Your task to perform on an android device: toggle priority inbox in the gmail app Image 0: 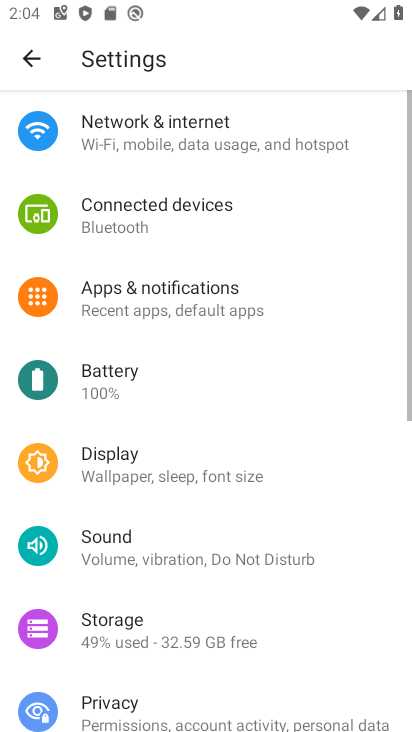
Step 0: press home button
Your task to perform on an android device: toggle priority inbox in the gmail app Image 1: 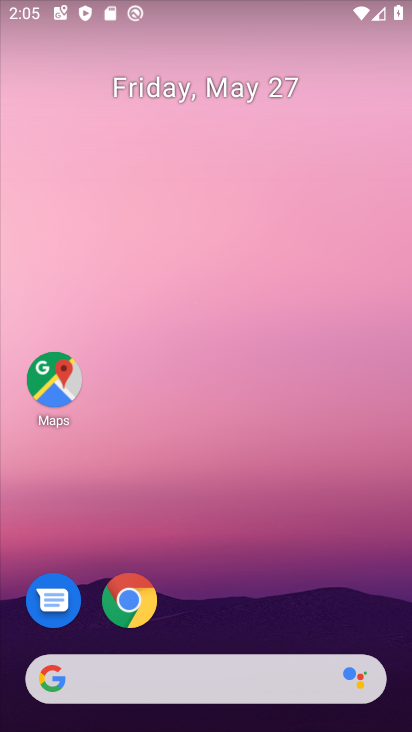
Step 1: drag from (215, 719) to (246, 279)
Your task to perform on an android device: toggle priority inbox in the gmail app Image 2: 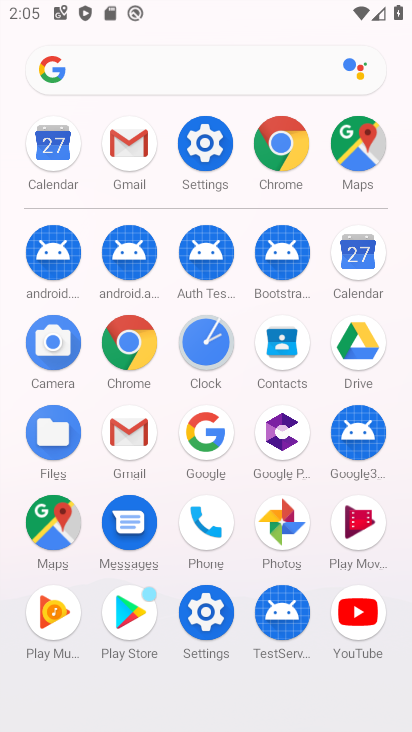
Step 2: click (123, 437)
Your task to perform on an android device: toggle priority inbox in the gmail app Image 3: 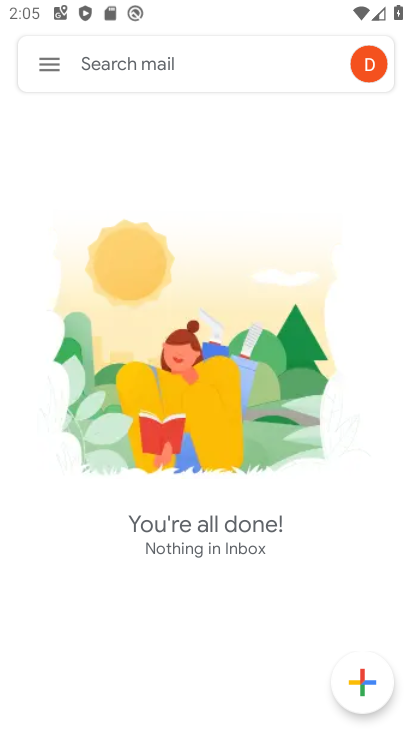
Step 3: click (50, 65)
Your task to perform on an android device: toggle priority inbox in the gmail app Image 4: 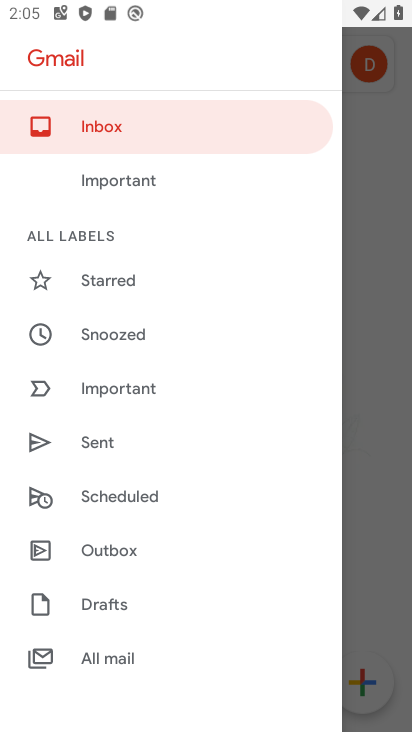
Step 4: drag from (107, 675) to (141, 248)
Your task to perform on an android device: toggle priority inbox in the gmail app Image 5: 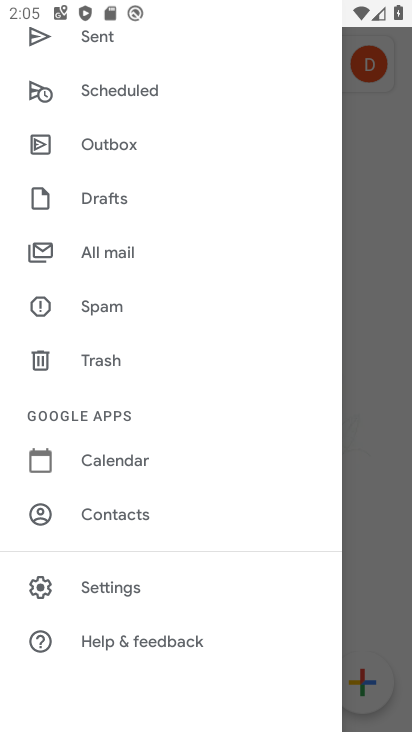
Step 5: click (118, 587)
Your task to perform on an android device: toggle priority inbox in the gmail app Image 6: 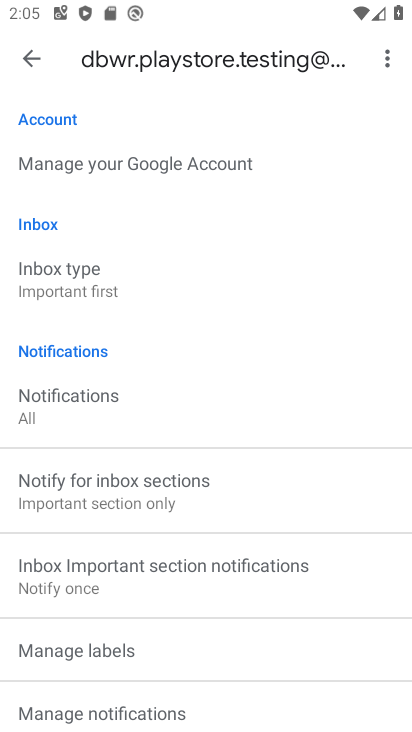
Step 6: click (58, 280)
Your task to perform on an android device: toggle priority inbox in the gmail app Image 7: 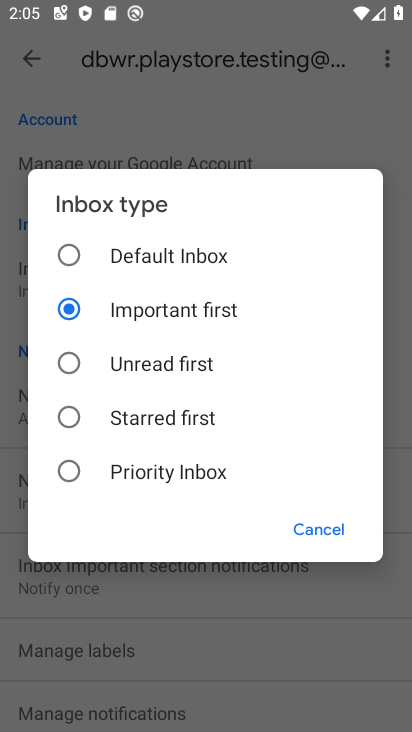
Step 7: click (69, 471)
Your task to perform on an android device: toggle priority inbox in the gmail app Image 8: 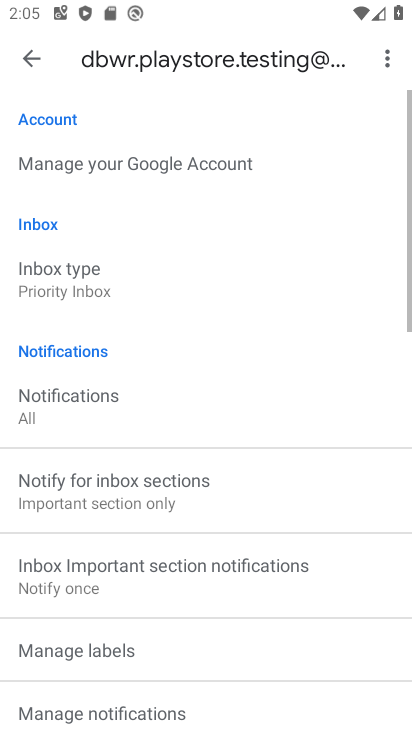
Step 8: task complete